Your task to perform on an android device: change the clock display to show seconds Image 0: 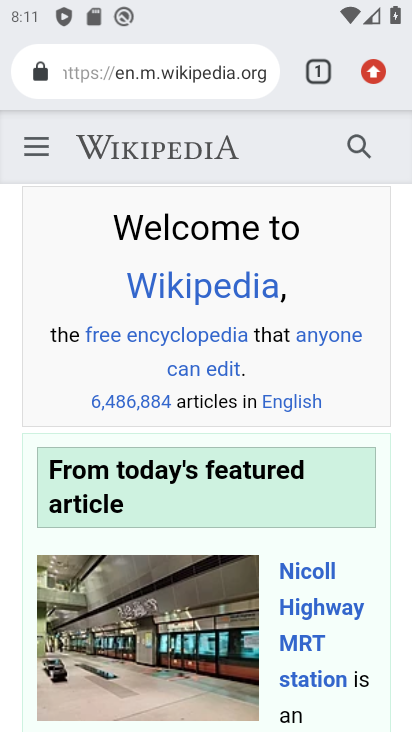
Step 0: press home button
Your task to perform on an android device: change the clock display to show seconds Image 1: 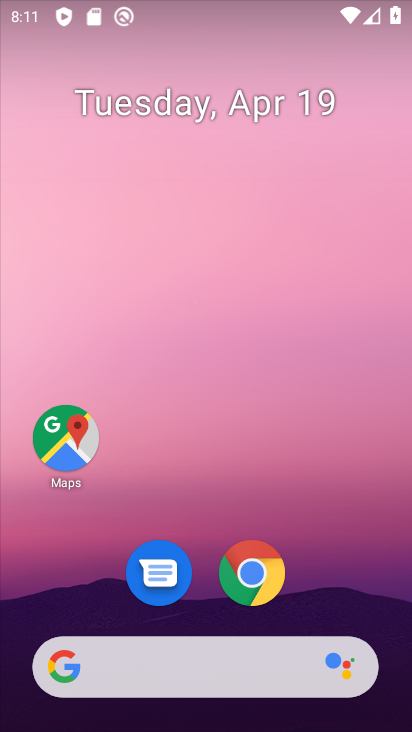
Step 1: drag from (317, 622) to (295, 57)
Your task to perform on an android device: change the clock display to show seconds Image 2: 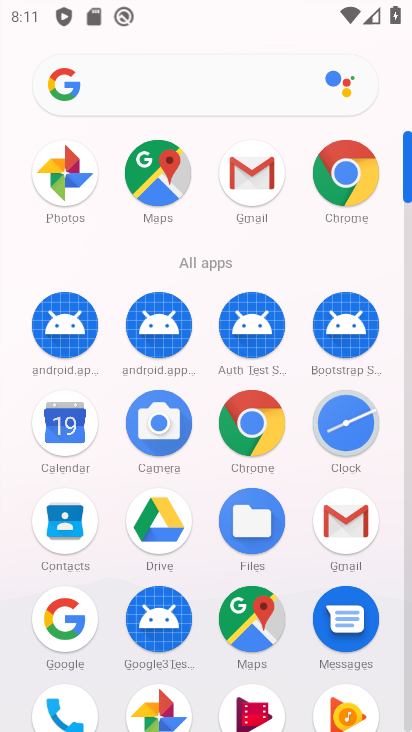
Step 2: click (346, 443)
Your task to perform on an android device: change the clock display to show seconds Image 3: 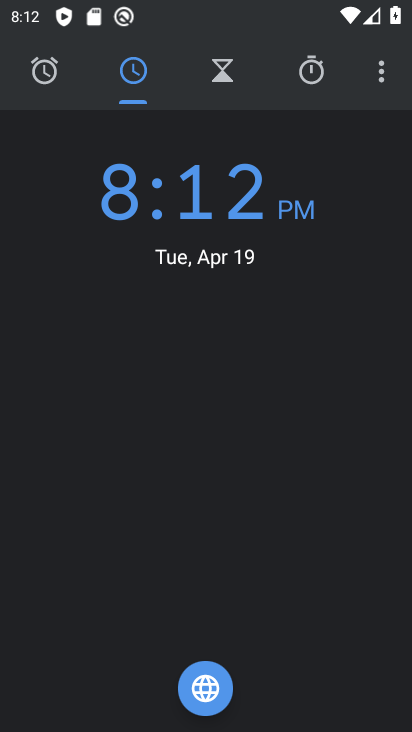
Step 3: click (387, 77)
Your task to perform on an android device: change the clock display to show seconds Image 4: 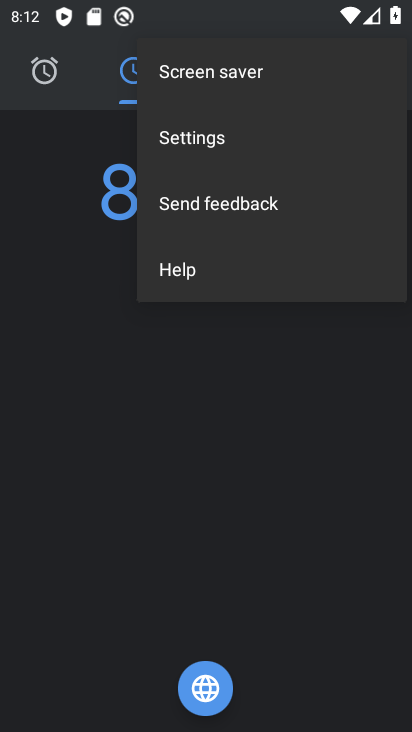
Step 4: click (233, 136)
Your task to perform on an android device: change the clock display to show seconds Image 5: 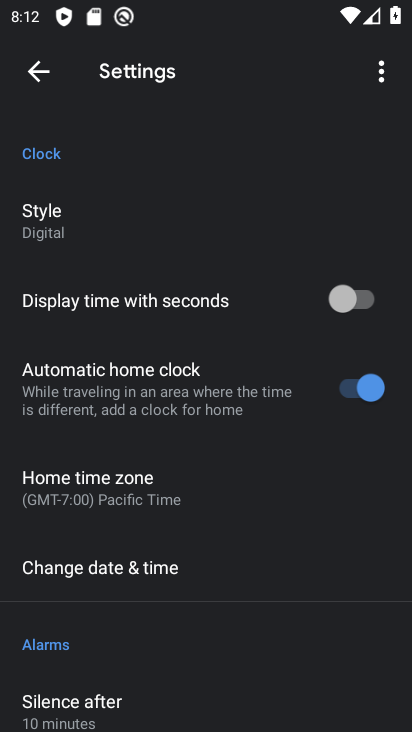
Step 5: click (368, 294)
Your task to perform on an android device: change the clock display to show seconds Image 6: 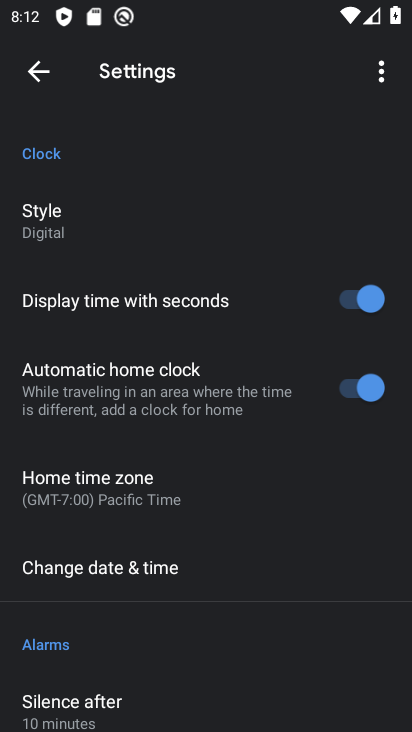
Step 6: task complete